Your task to perform on an android device: turn off improve location accuracy Image 0: 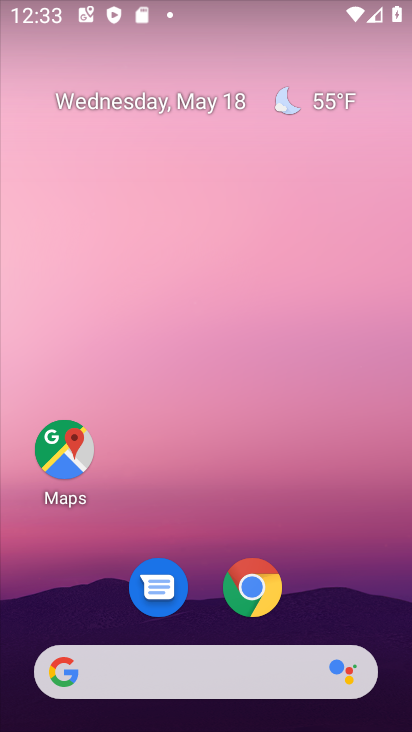
Step 0: drag from (326, 611) to (266, 185)
Your task to perform on an android device: turn off improve location accuracy Image 1: 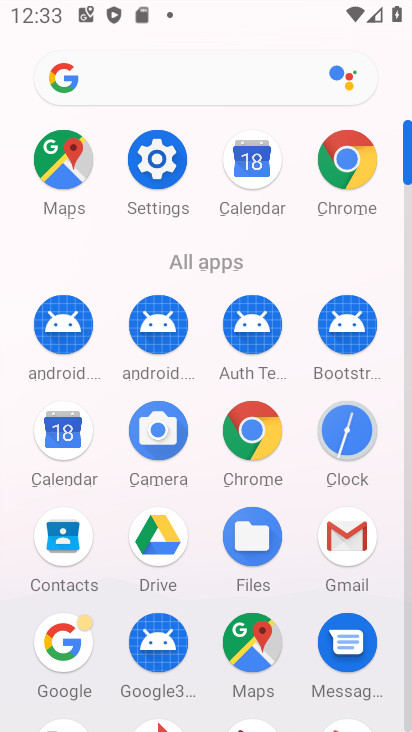
Step 1: click (151, 173)
Your task to perform on an android device: turn off improve location accuracy Image 2: 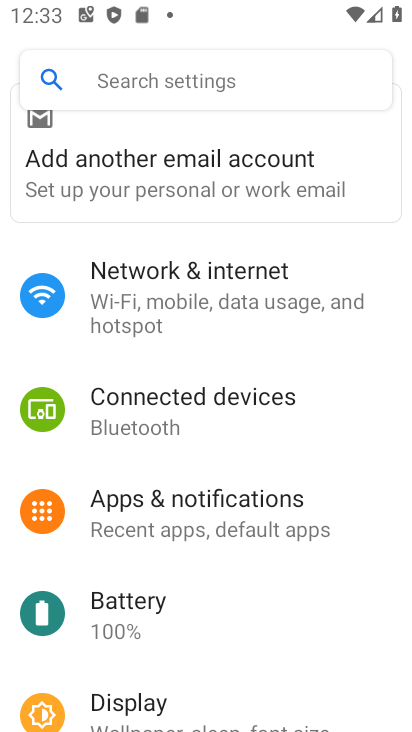
Step 2: drag from (218, 656) to (219, 191)
Your task to perform on an android device: turn off improve location accuracy Image 3: 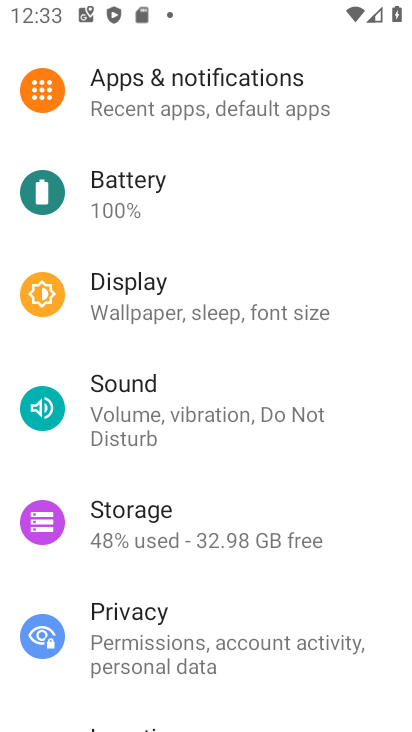
Step 3: drag from (183, 581) to (191, 364)
Your task to perform on an android device: turn off improve location accuracy Image 4: 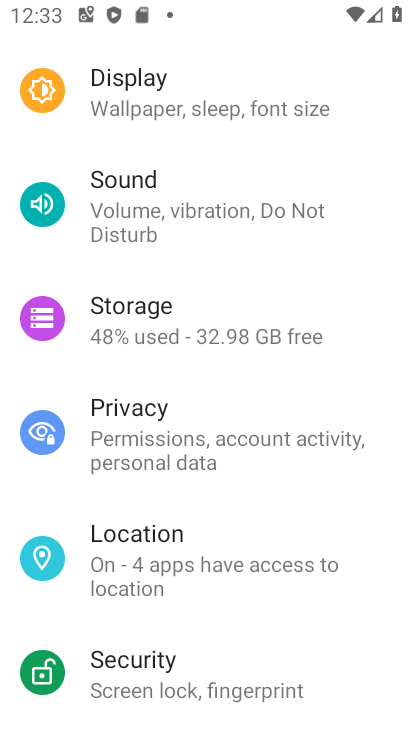
Step 4: click (150, 559)
Your task to perform on an android device: turn off improve location accuracy Image 5: 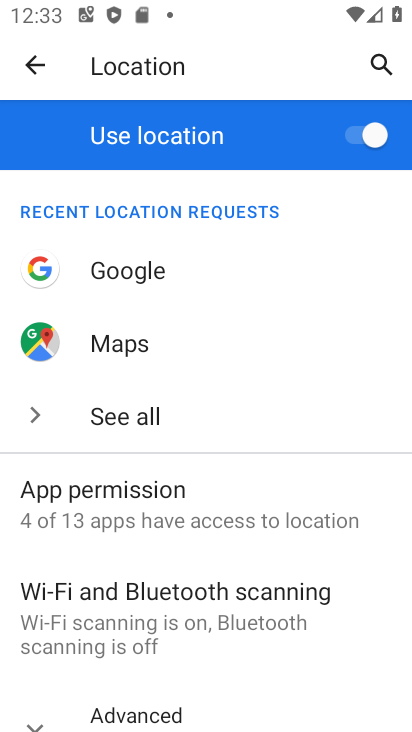
Step 5: drag from (248, 666) to (276, 410)
Your task to perform on an android device: turn off improve location accuracy Image 6: 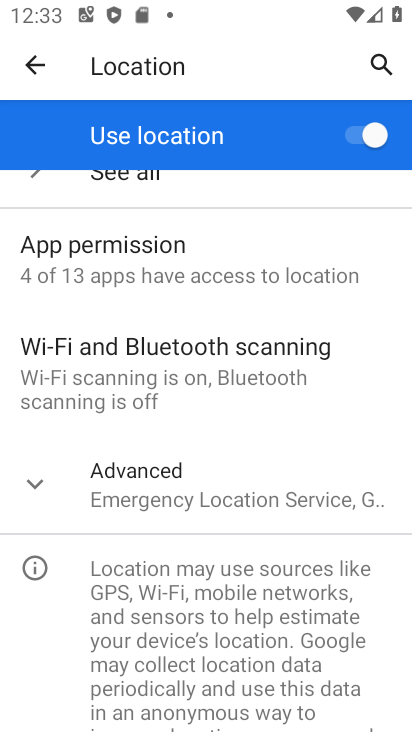
Step 6: click (198, 497)
Your task to perform on an android device: turn off improve location accuracy Image 7: 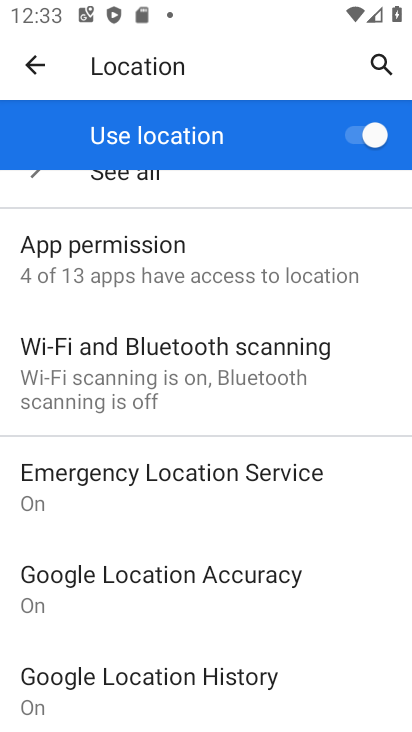
Step 7: click (197, 582)
Your task to perform on an android device: turn off improve location accuracy Image 8: 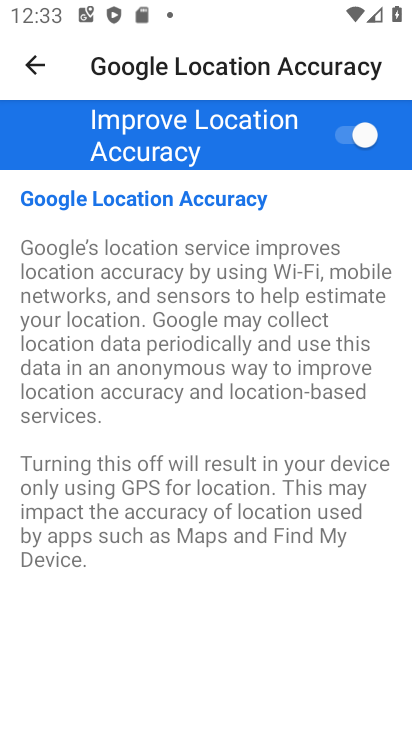
Step 8: click (348, 138)
Your task to perform on an android device: turn off improve location accuracy Image 9: 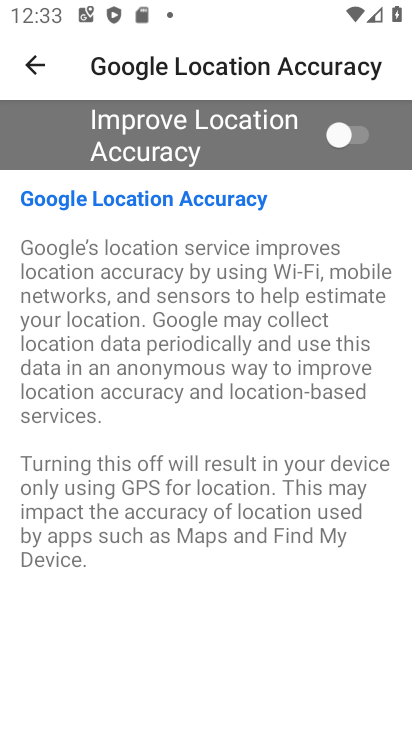
Step 9: task complete